Your task to perform on an android device: empty trash in the gmail app Image 0: 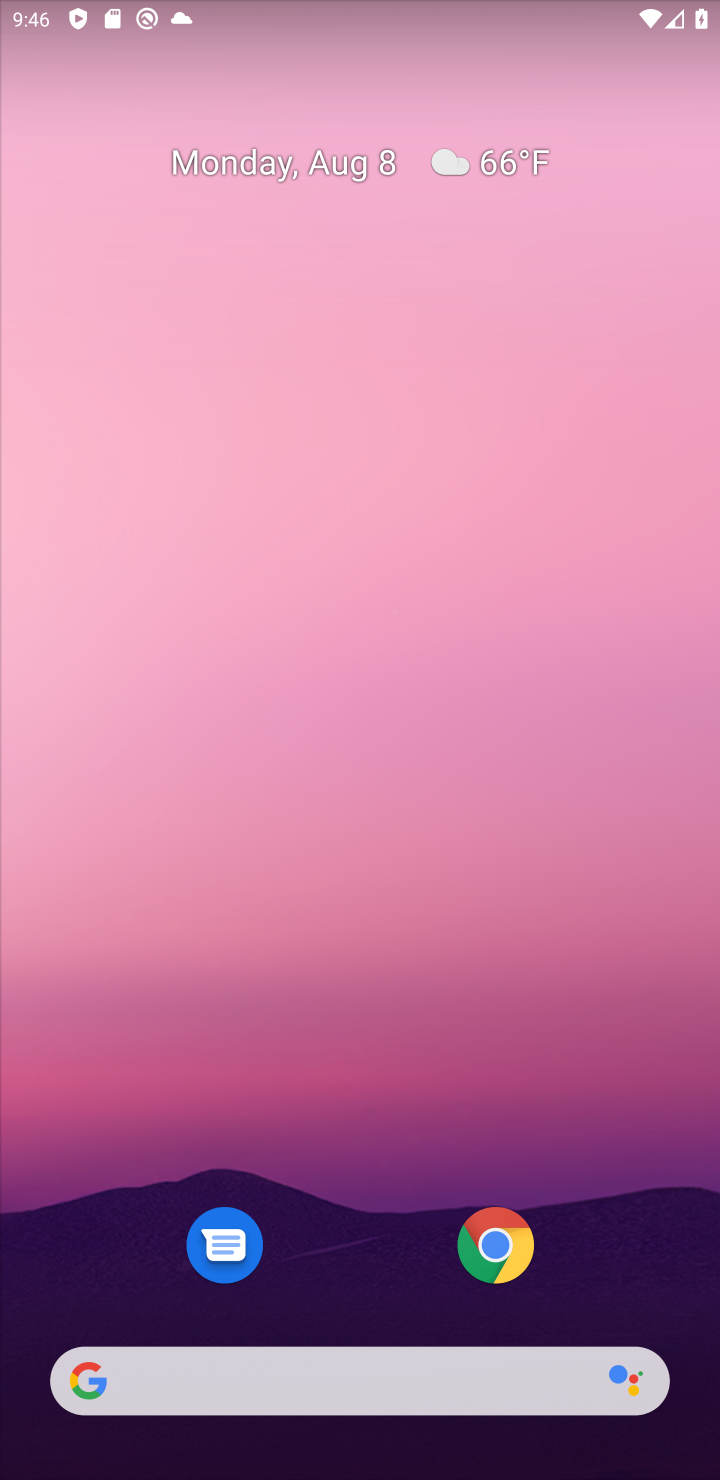
Step 0: press home button
Your task to perform on an android device: empty trash in the gmail app Image 1: 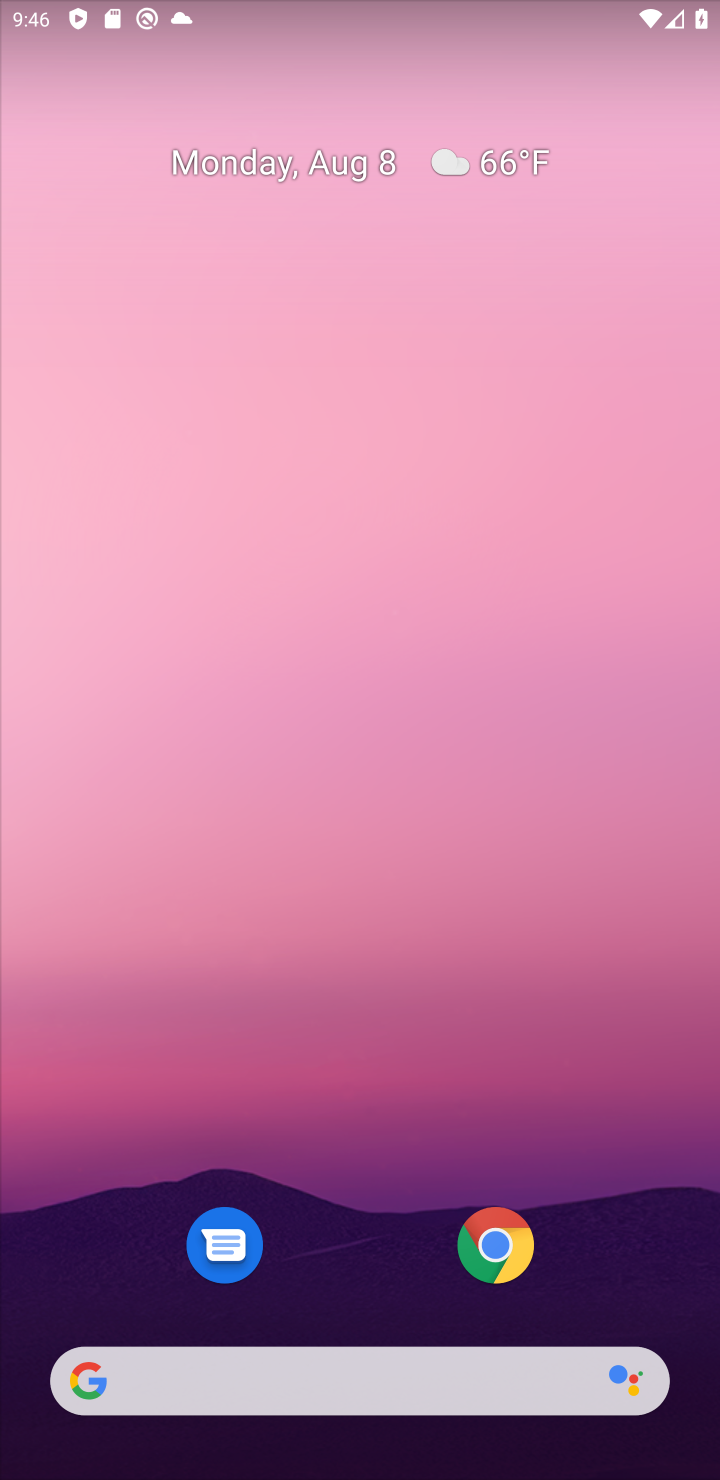
Step 1: drag from (356, 1200) to (344, 308)
Your task to perform on an android device: empty trash in the gmail app Image 2: 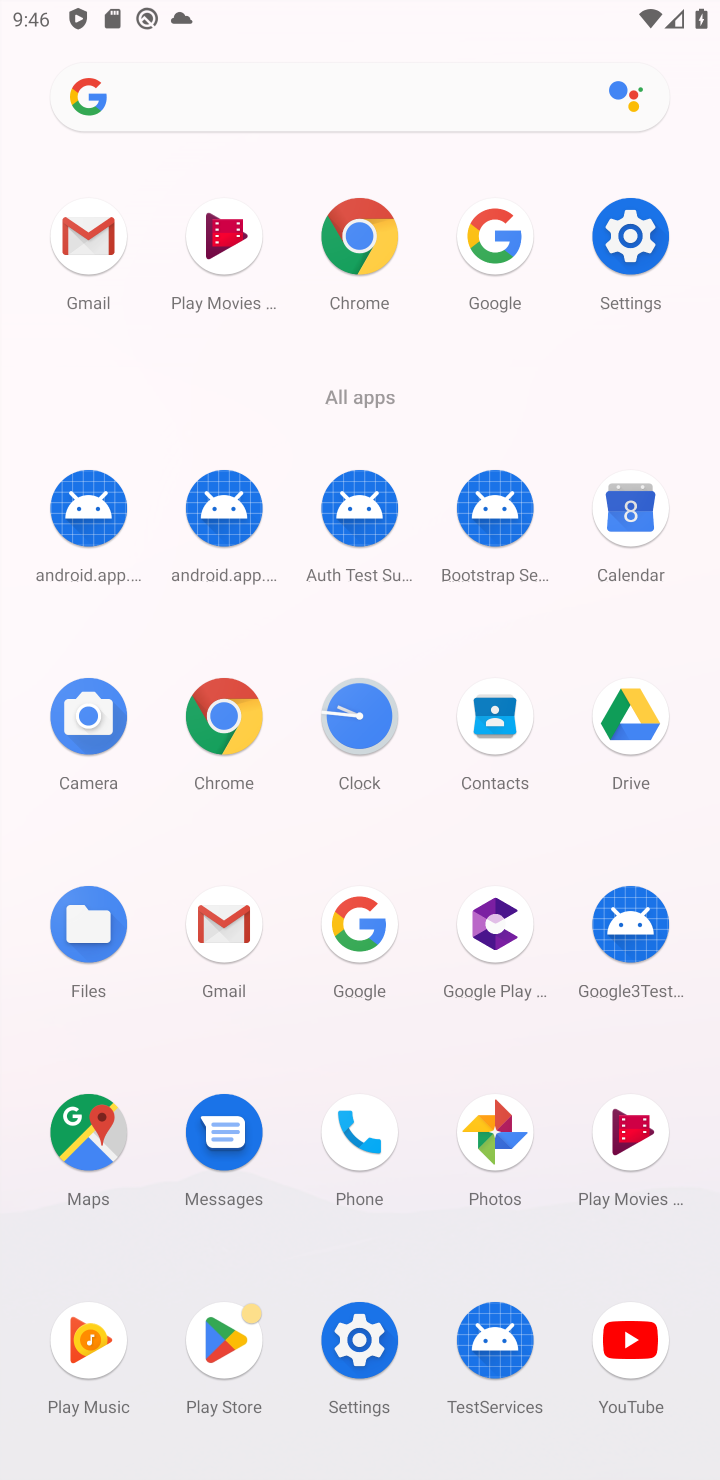
Step 2: click (79, 243)
Your task to perform on an android device: empty trash in the gmail app Image 3: 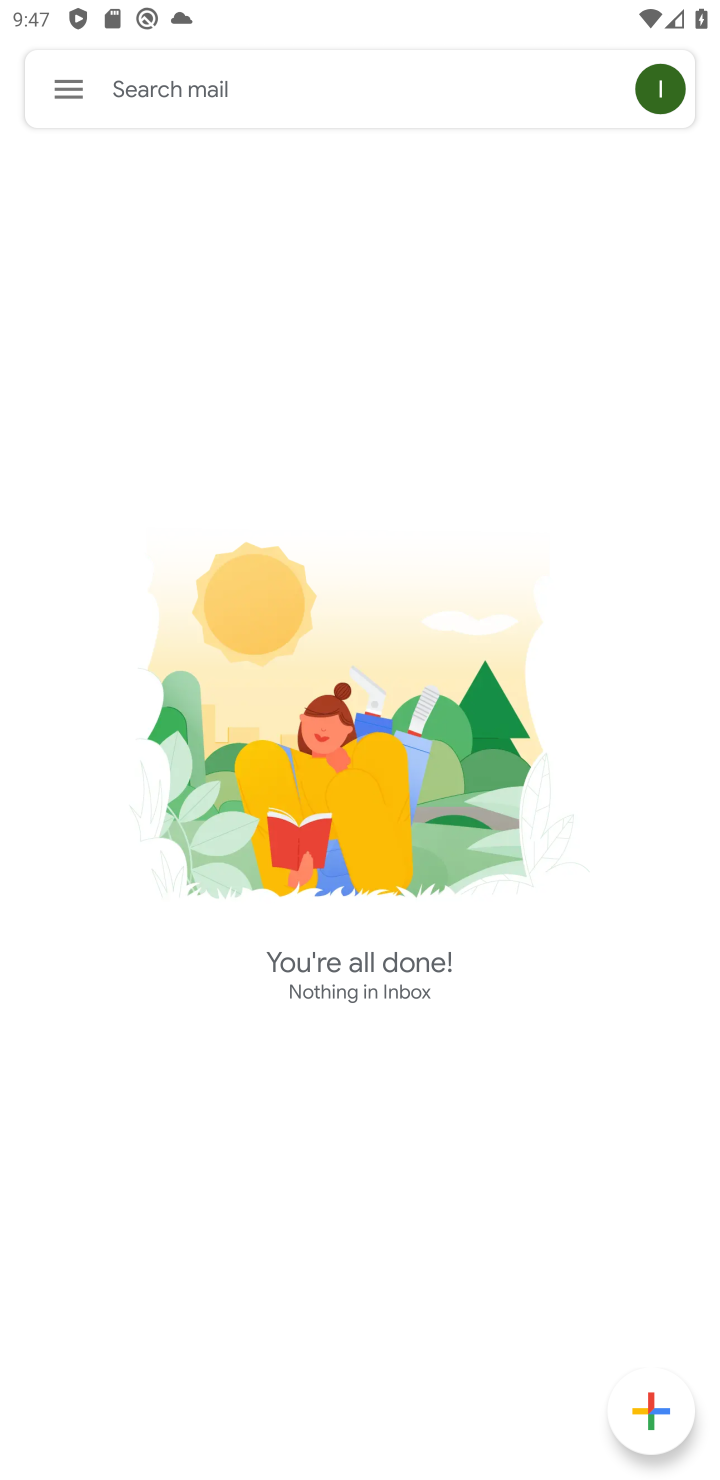
Step 3: click (71, 88)
Your task to perform on an android device: empty trash in the gmail app Image 4: 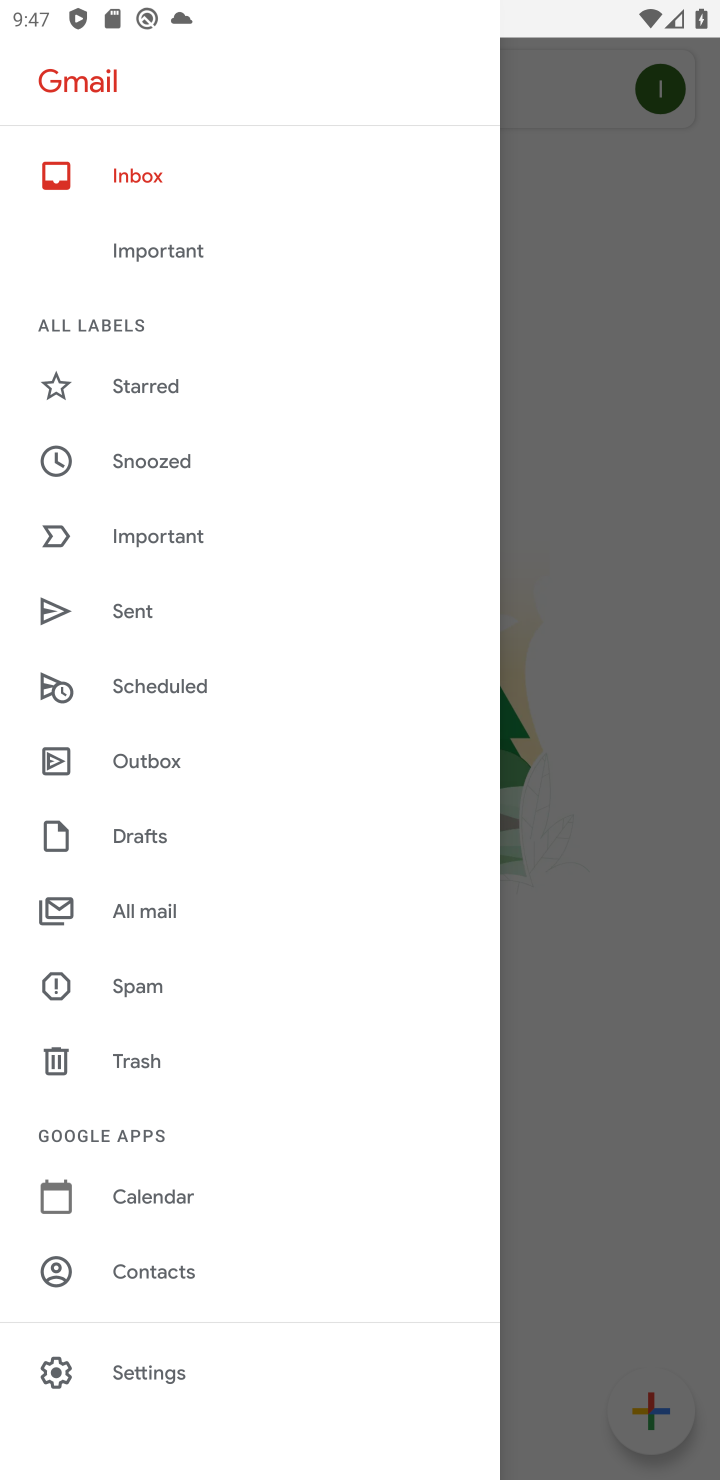
Step 4: click (136, 1052)
Your task to perform on an android device: empty trash in the gmail app Image 5: 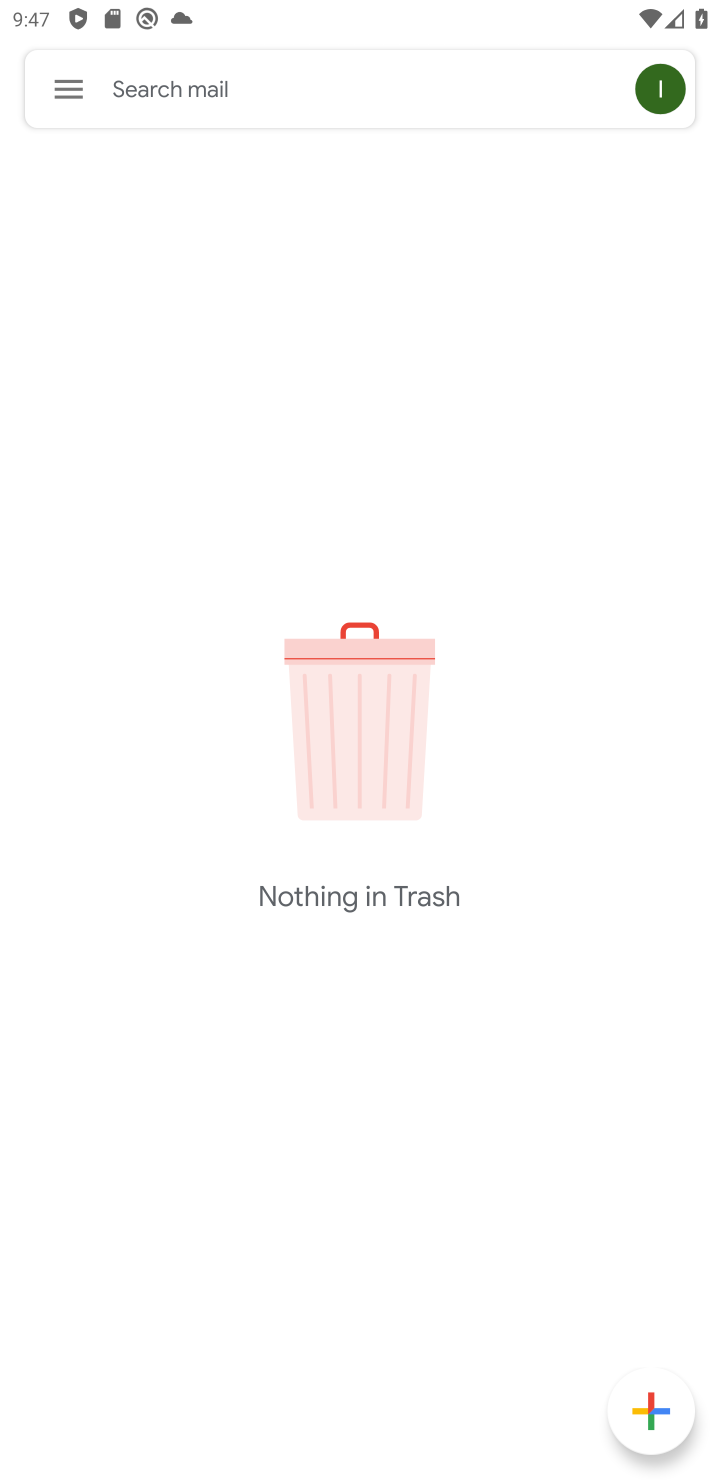
Step 5: task complete